Your task to perform on an android device: Open sound settings Image 0: 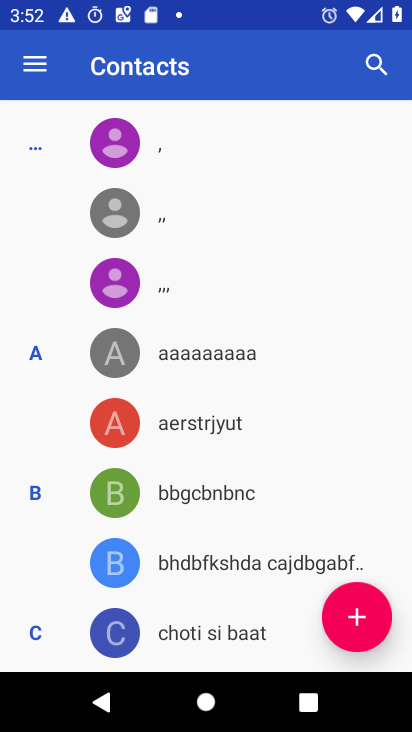
Step 0: drag from (344, 563) to (311, 142)
Your task to perform on an android device: Open sound settings Image 1: 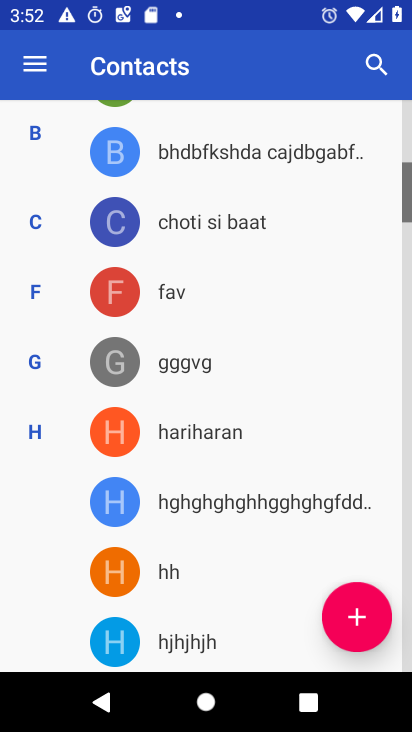
Step 1: press home button
Your task to perform on an android device: Open sound settings Image 2: 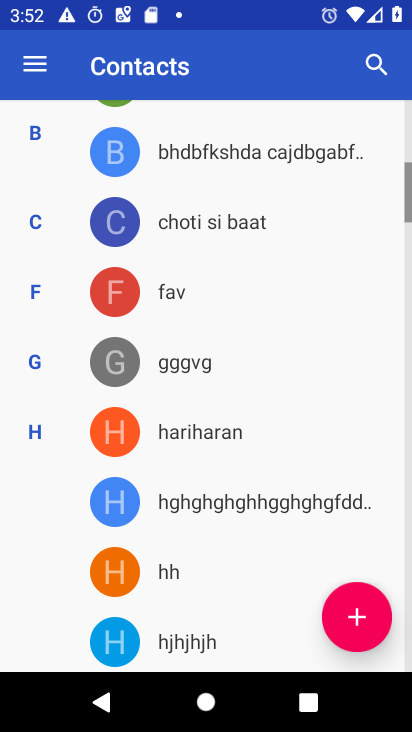
Step 2: press home button
Your task to perform on an android device: Open sound settings Image 3: 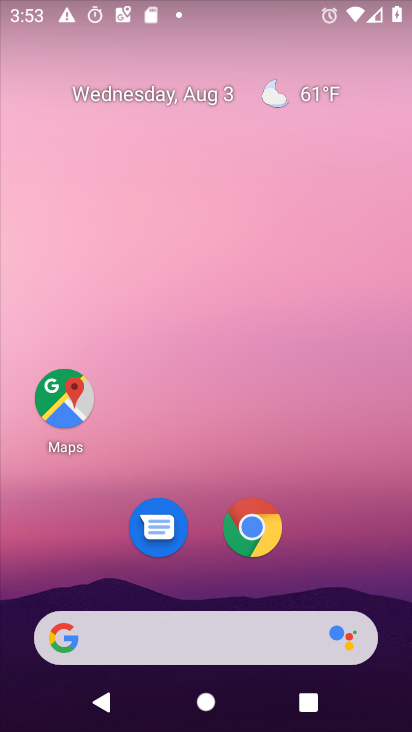
Step 3: drag from (331, 483) to (221, 53)
Your task to perform on an android device: Open sound settings Image 4: 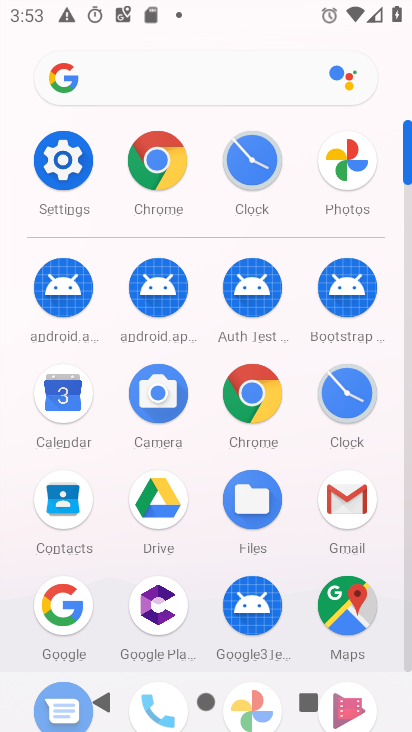
Step 4: click (54, 162)
Your task to perform on an android device: Open sound settings Image 5: 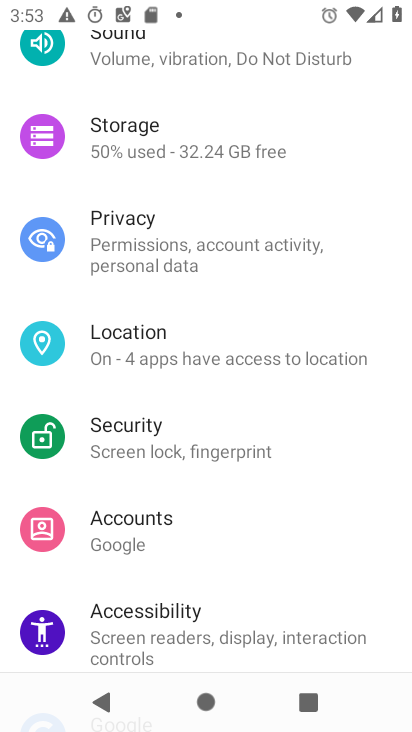
Step 5: drag from (306, 128) to (260, 518)
Your task to perform on an android device: Open sound settings Image 6: 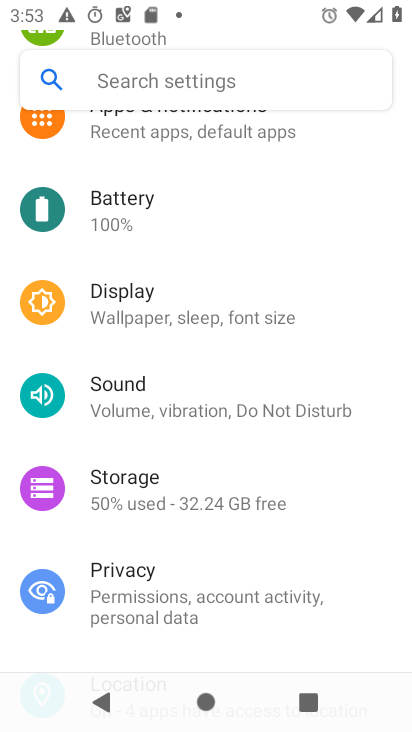
Step 6: click (156, 408)
Your task to perform on an android device: Open sound settings Image 7: 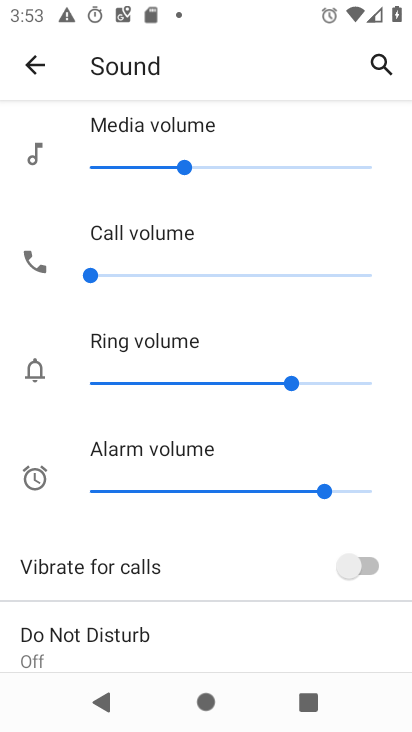
Step 7: task complete